Your task to perform on an android device: Clear the cart on target. Image 0: 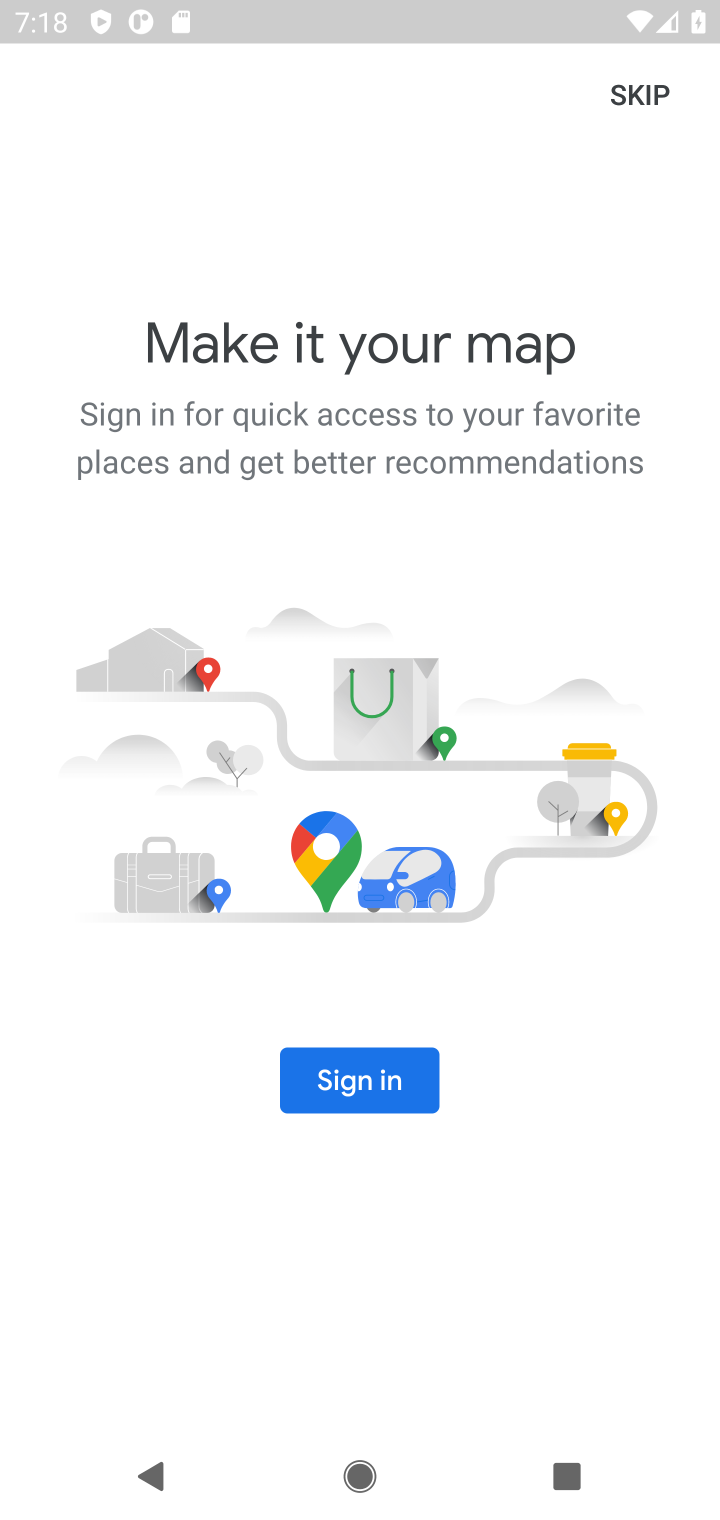
Step 0: press home button
Your task to perform on an android device: Clear the cart on target. Image 1: 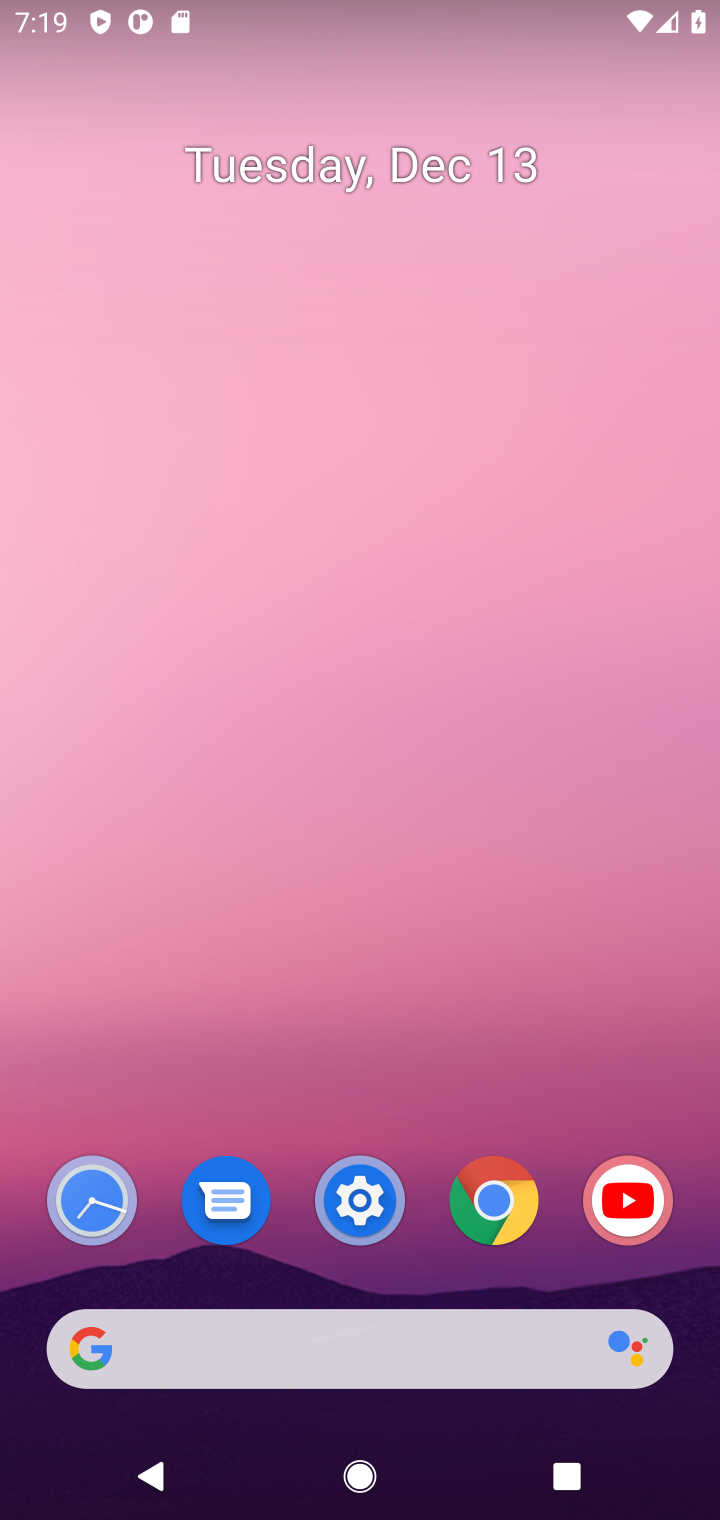
Step 1: click (278, 1337)
Your task to perform on an android device: Clear the cart on target. Image 2: 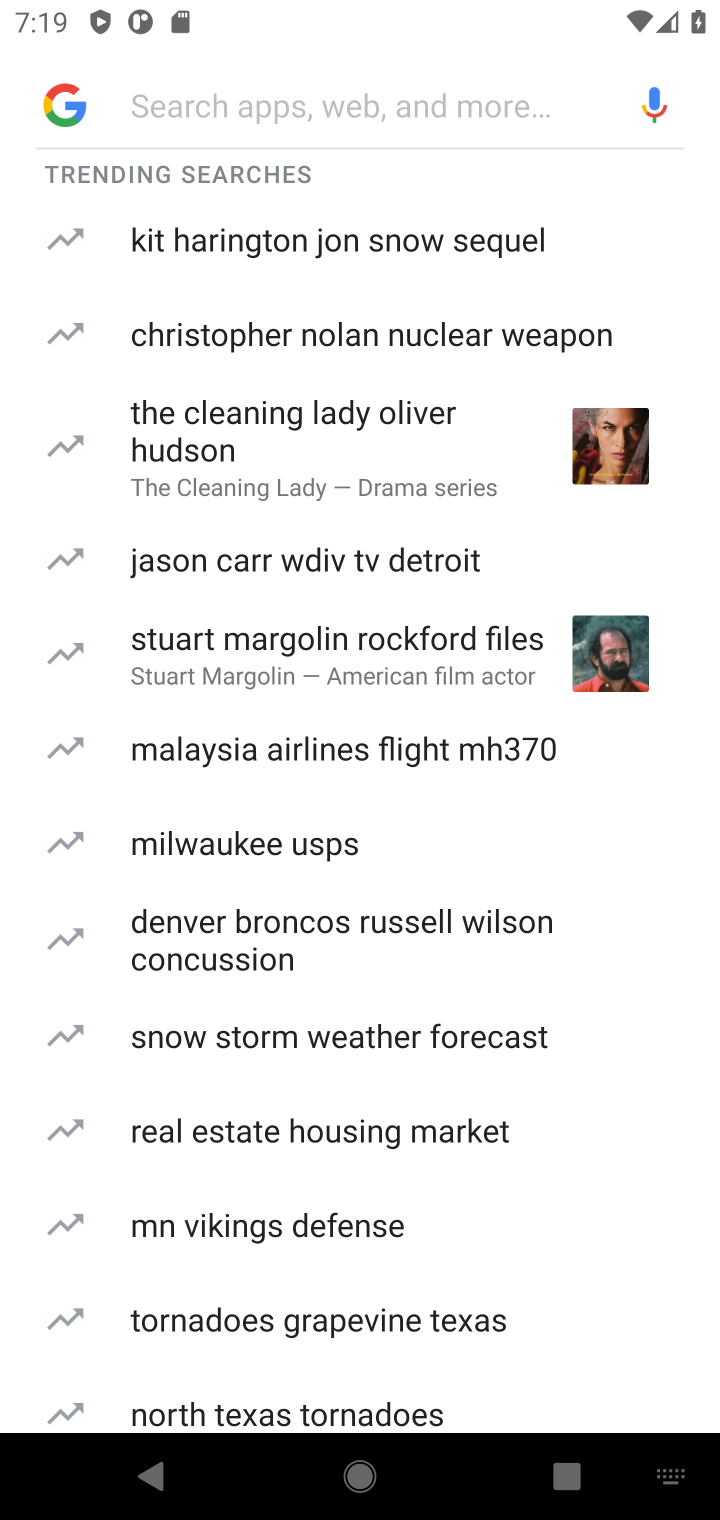
Step 2: type "target"
Your task to perform on an android device: Clear the cart on target. Image 3: 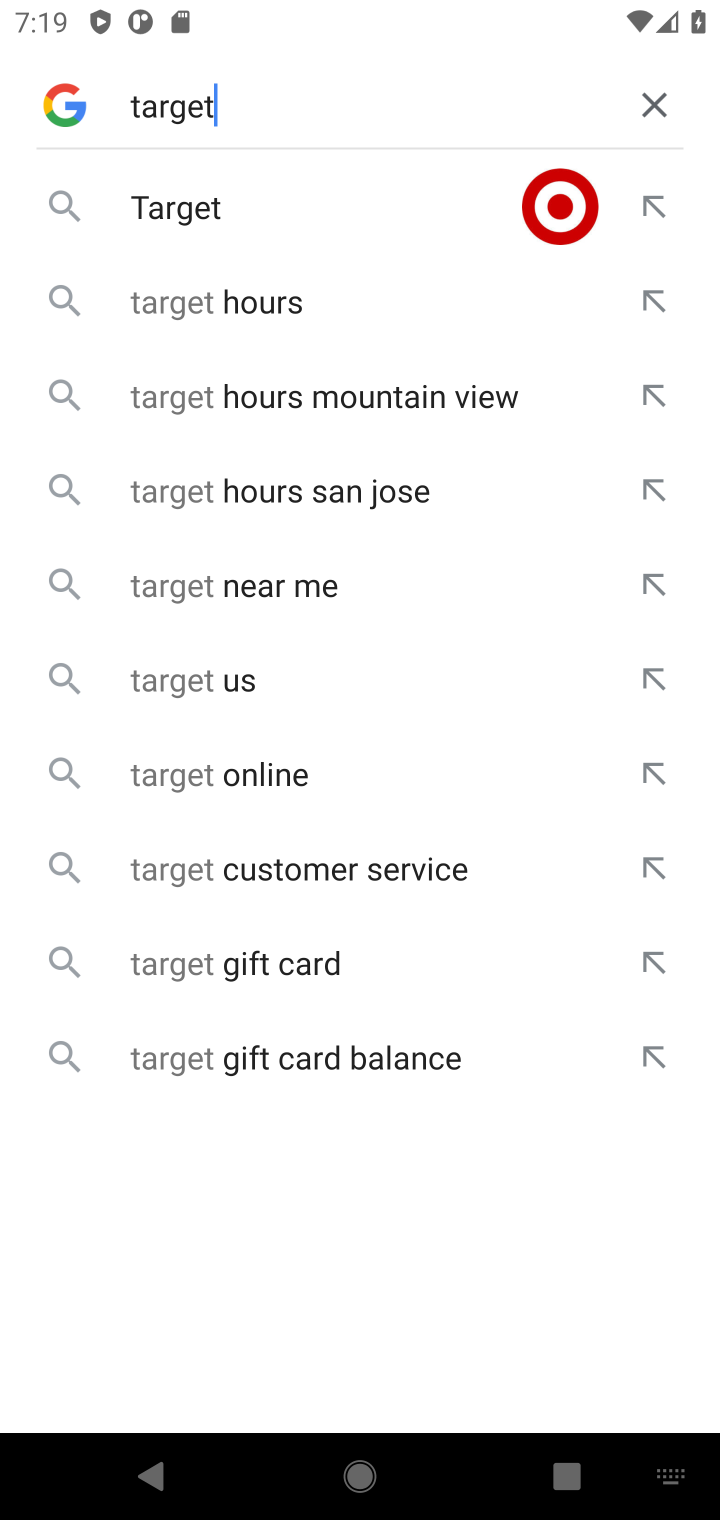
Step 3: click (403, 233)
Your task to perform on an android device: Clear the cart on target. Image 4: 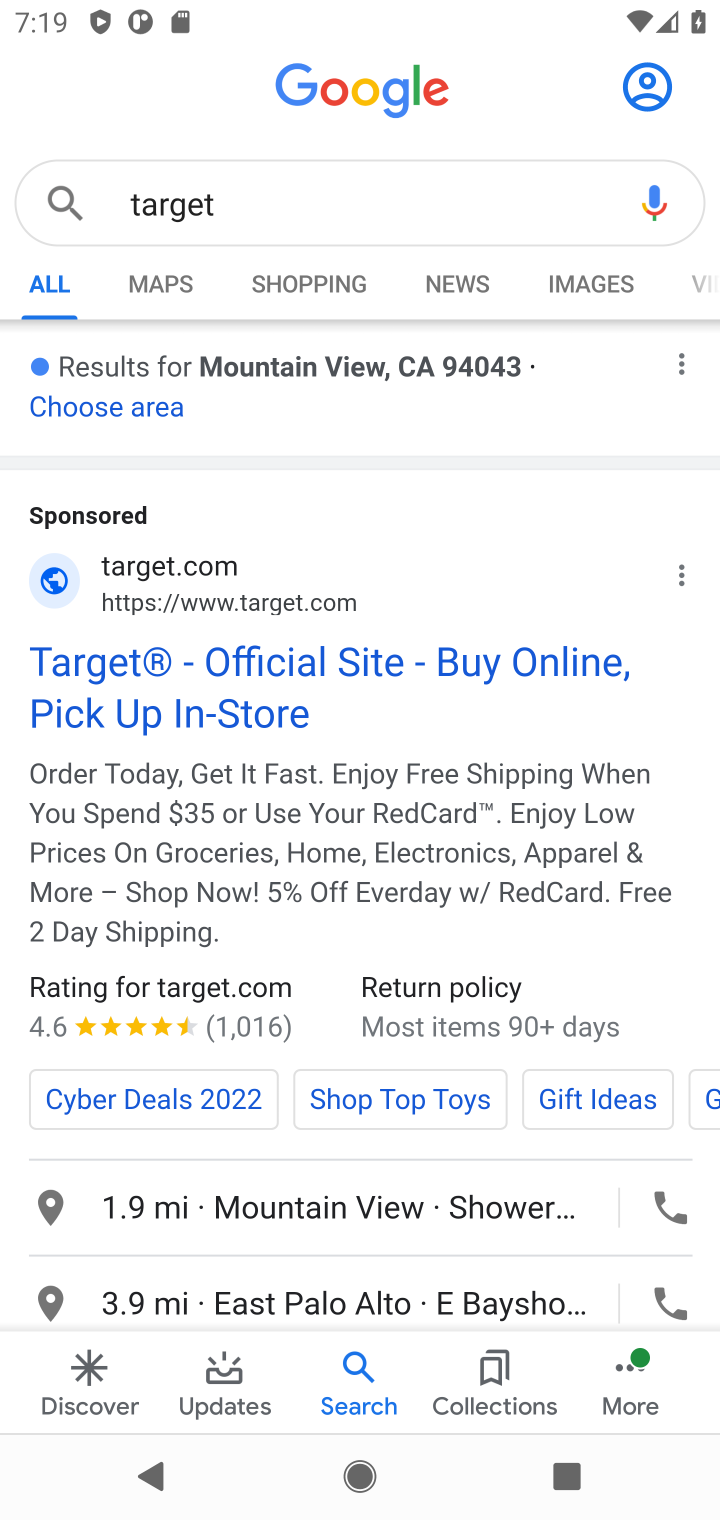
Step 4: drag from (221, 1130) to (368, 230)
Your task to perform on an android device: Clear the cart on target. Image 5: 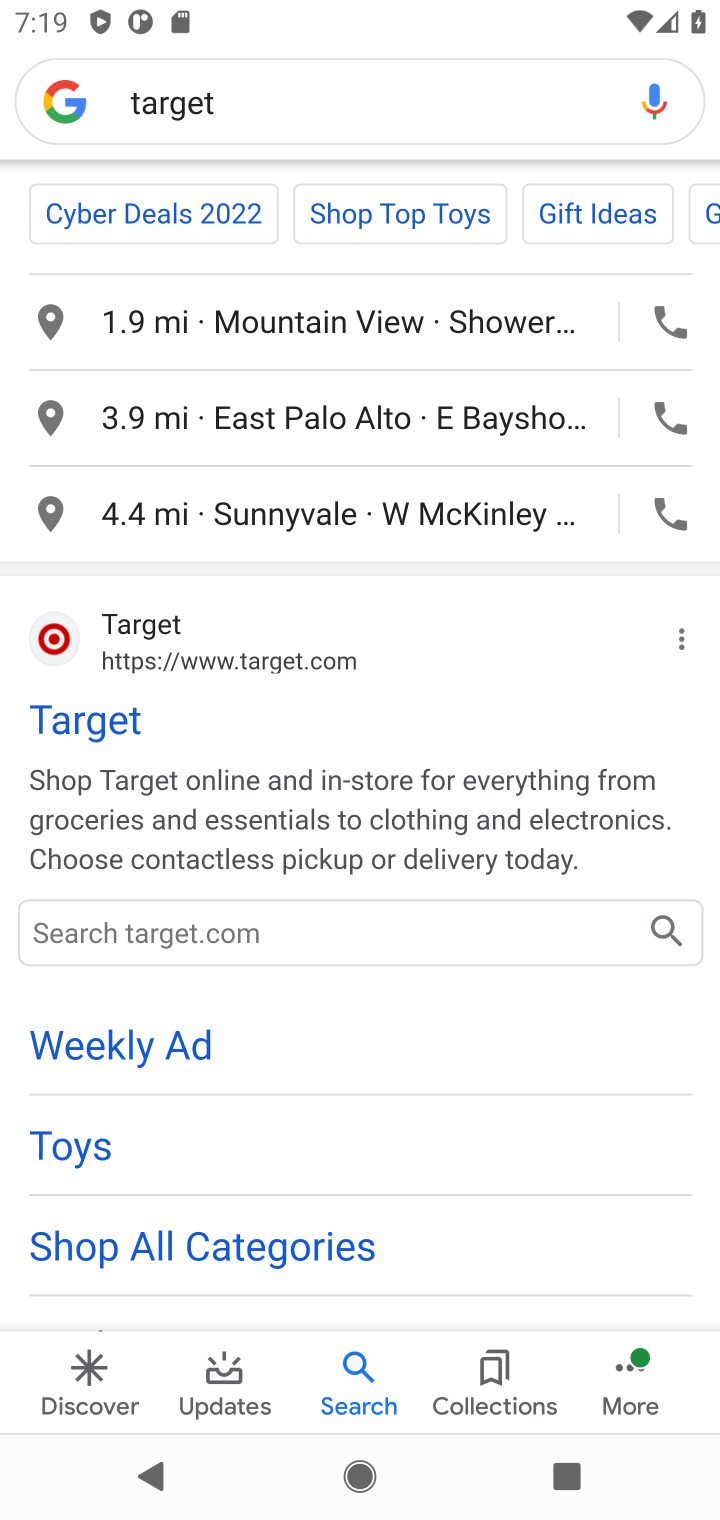
Step 5: click (94, 723)
Your task to perform on an android device: Clear the cart on target. Image 6: 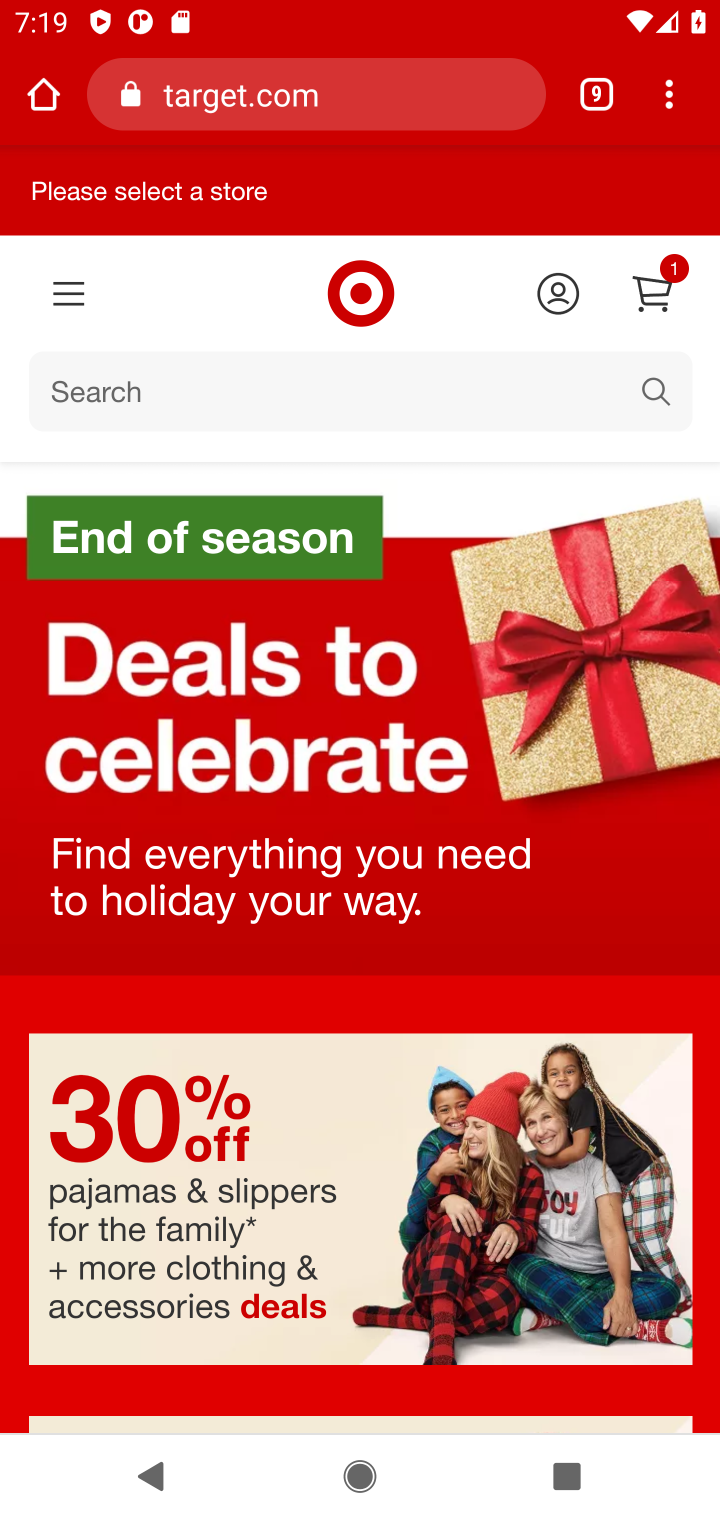
Step 6: click (651, 291)
Your task to perform on an android device: Clear the cart on target. Image 7: 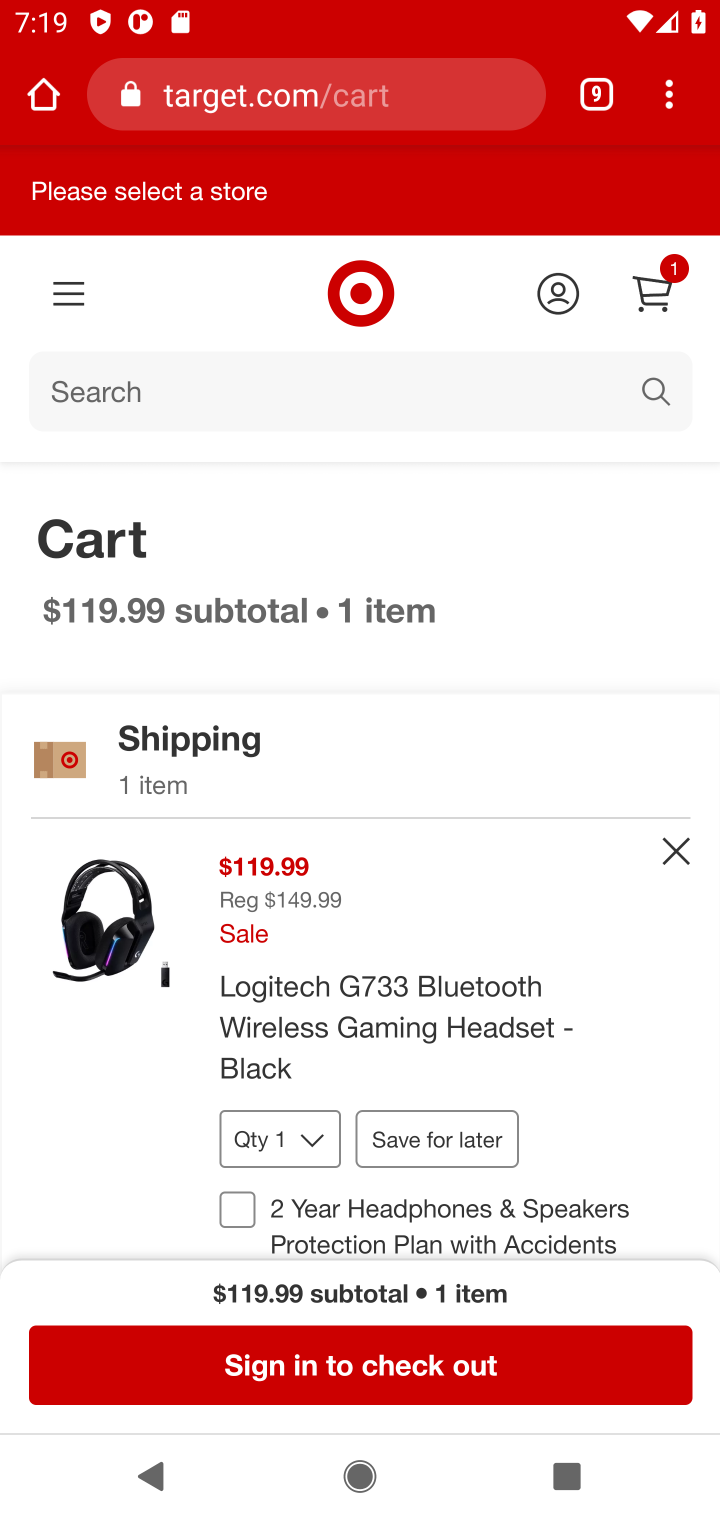
Step 7: click (675, 847)
Your task to perform on an android device: Clear the cart on target. Image 8: 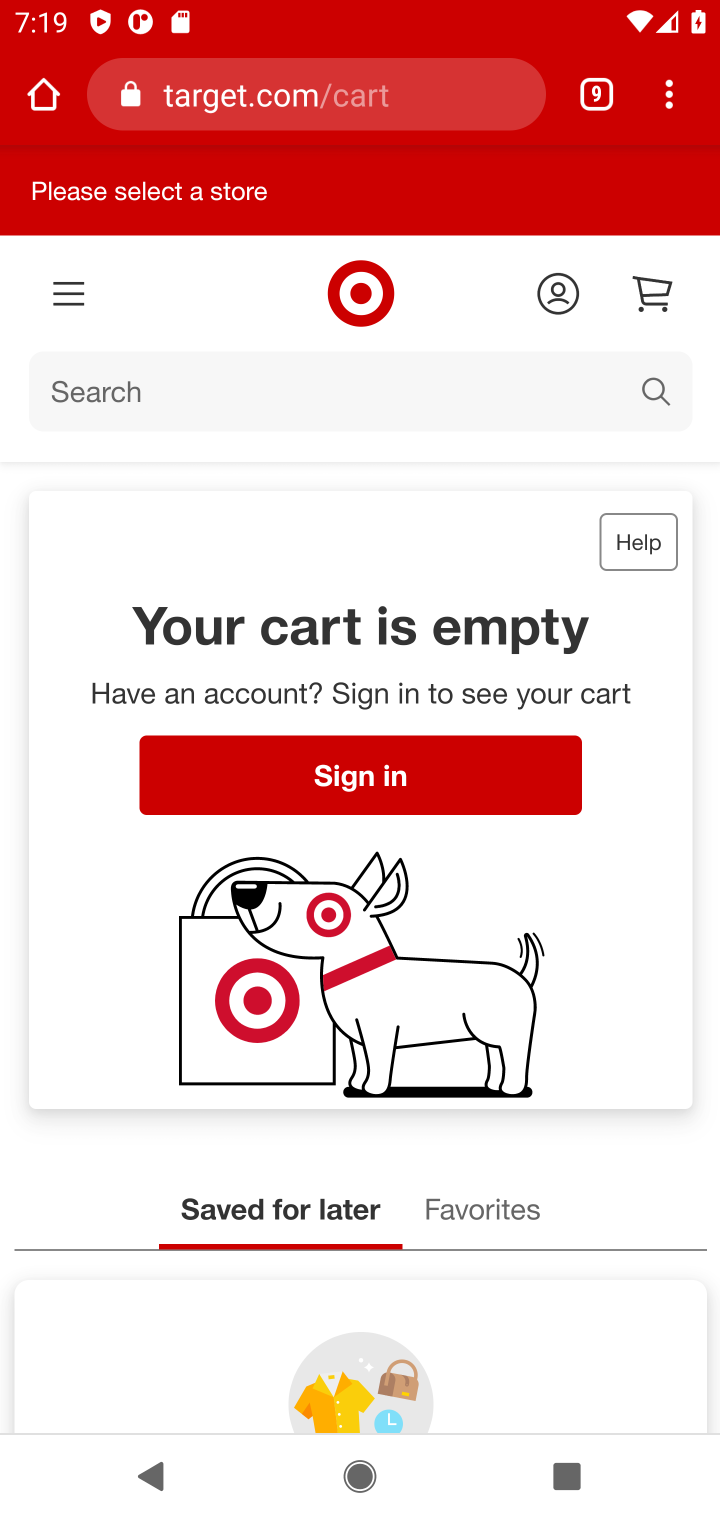
Step 8: task complete